Your task to perform on an android device: turn on airplane mode Image 0: 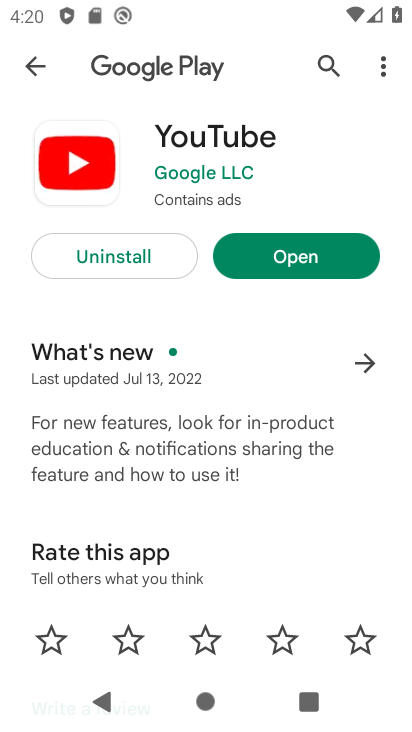
Step 0: press home button
Your task to perform on an android device: turn on airplane mode Image 1: 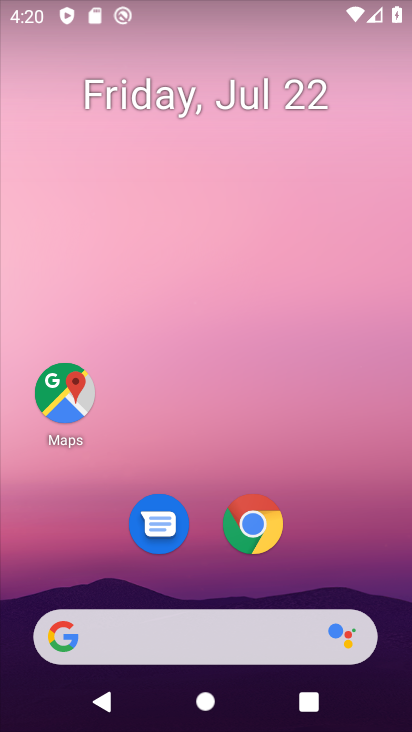
Step 1: drag from (329, 531) to (361, 42)
Your task to perform on an android device: turn on airplane mode Image 2: 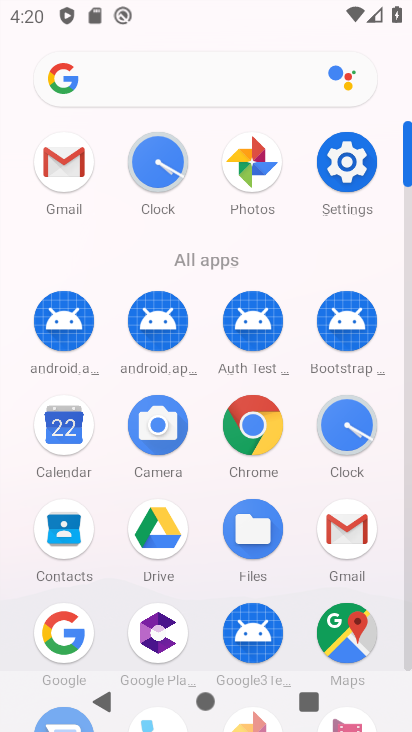
Step 2: click (344, 161)
Your task to perform on an android device: turn on airplane mode Image 3: 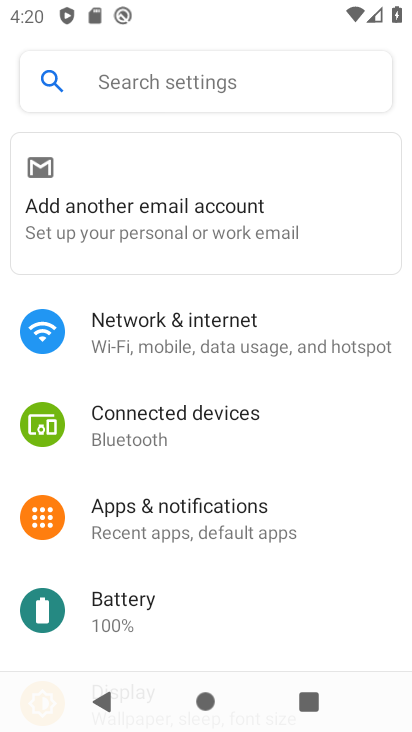
Step 3: click (247, 329)
Your task to perform on an android device: turn on airplane mode Image 4: 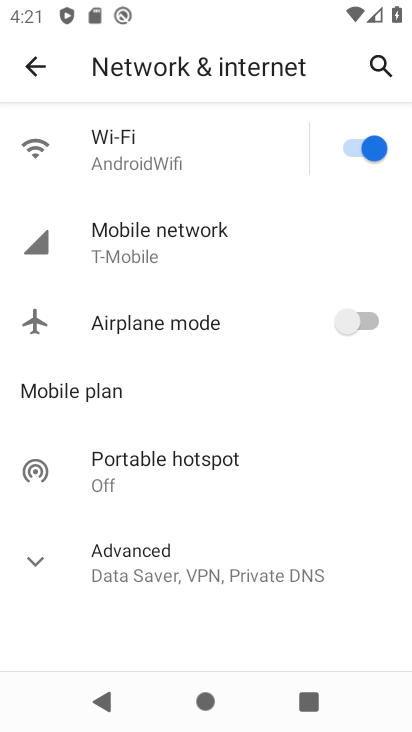
Step 4: click (353, 319)
Your task to perform on an android device: turn on airplane mode Image 5: 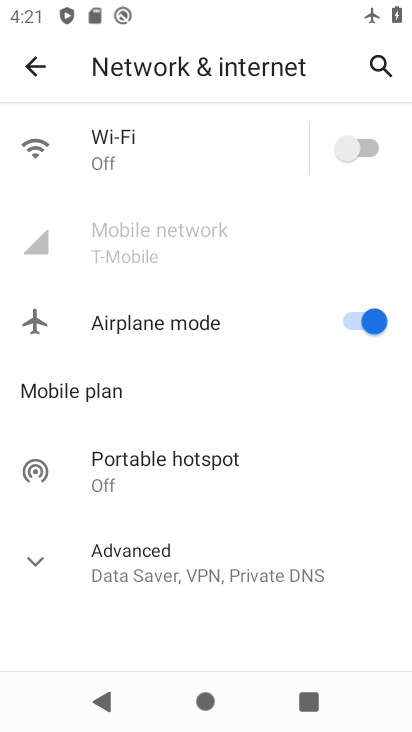
Step 5: task complete